Your task to perform on an android device: turn on improve location accuracy Image 0: 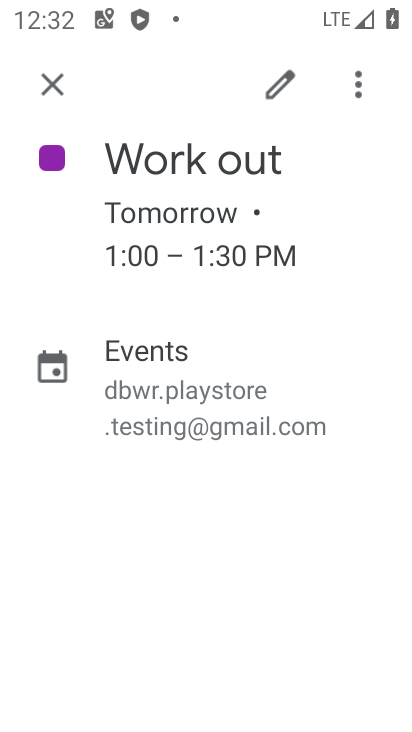
Step 0: press home button
Your task to perform on an android device: turn on improve location accuracy Image 1: 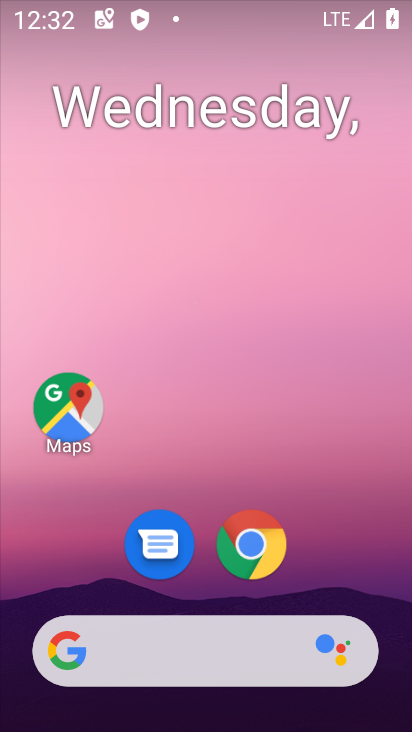
Step 1: drag from (384, 637) to (318, 77)
Your task to perform on an android device: turn on improve location accuracy Image 2: 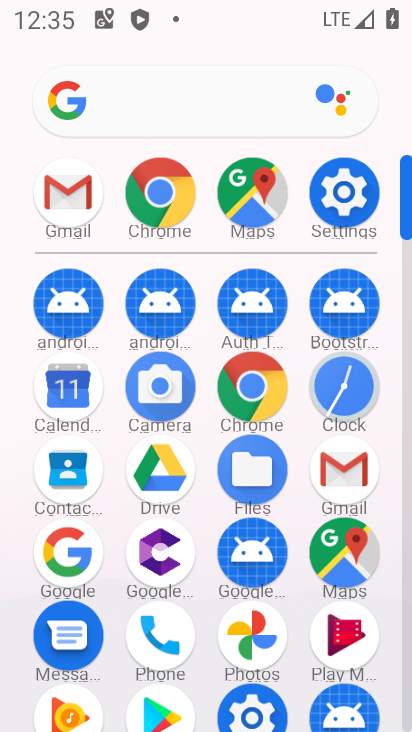
Step 2: click (260, 709)
Your task to perform on an android device: turn on improve location accuracy Image 3: 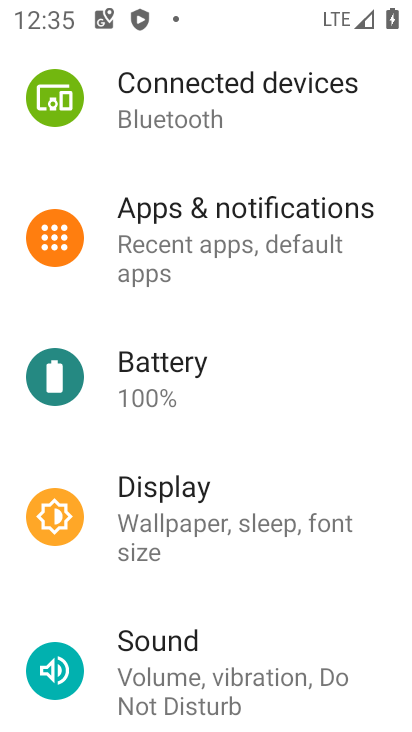
Step 3: drag from (180, 685) to (273, 194)
Your task to perform on an android device: turn on improve location accuracy Image 4: 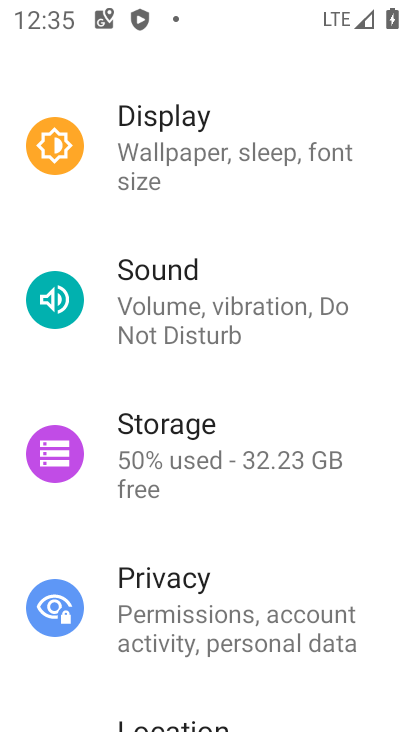
Step 4: drag from (187, 626) to (252, 199)
Your task to perform on an android device: turn on improve location accuracy Image 5: 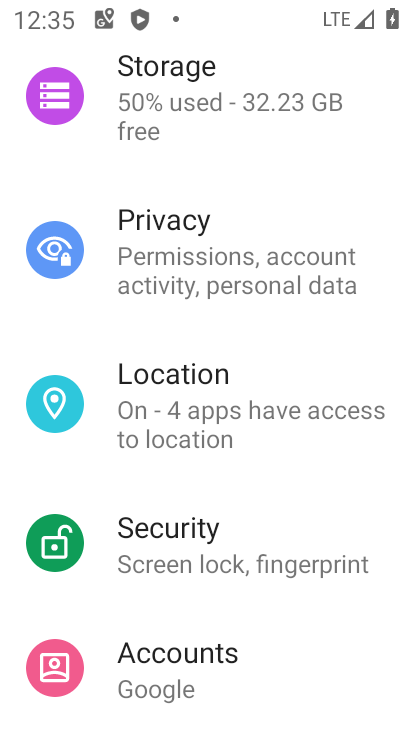
Step 5: click (212, 440)
Your task to perform on an android device: turn on improve location accuracy Image 6: 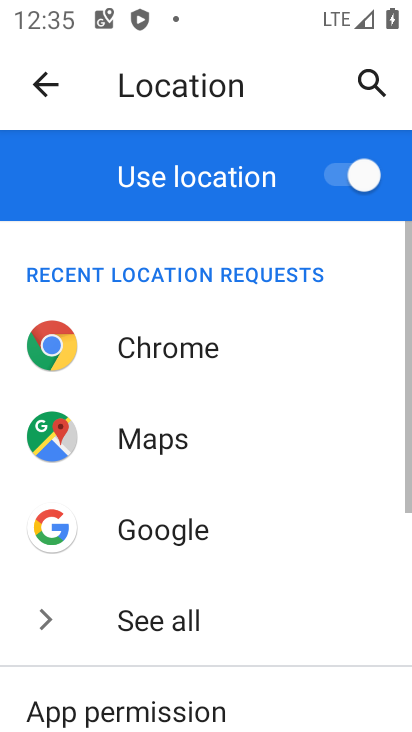
Step 6: drag from (191, 667) to (229, 69)
Your task to perform on an android device: turn on improve location accuracy Image 7: 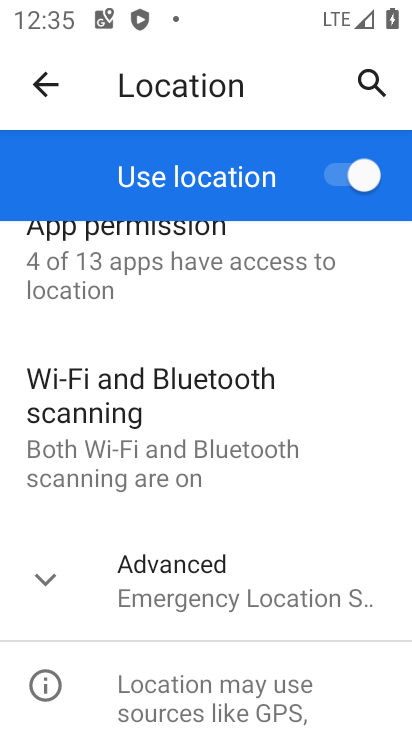
Step 7: click (69, 569)
Your task to perform on an android device: turn on improve location accuracy Image 8: 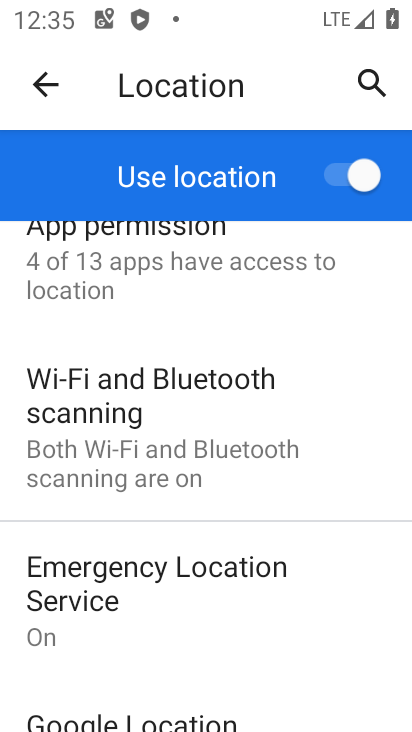
Step 8: drag from (228, 707) to (269, 305)
Your task to perform on an android device: turn on improve location accuracy Image 9: 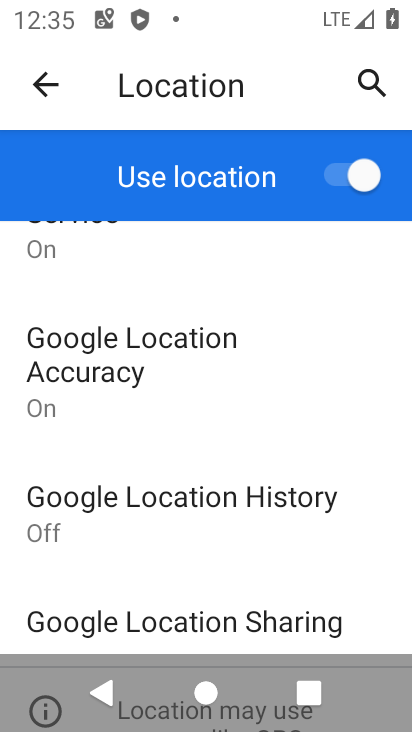
Step 9: drag from (230, 651) to (272, 237)
Your task to perform on an android device: turn on improve location accuracy Image 10: 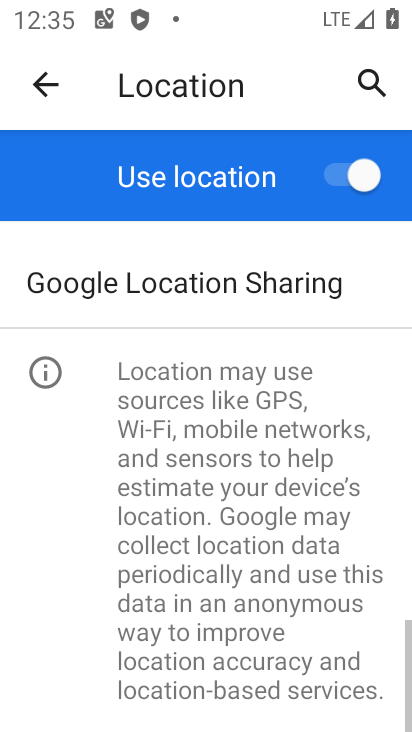
Step 10: drag from (185, 227) to (175, 660)
Your task to perform on an android device: turn on improve location accuracy Image 11: 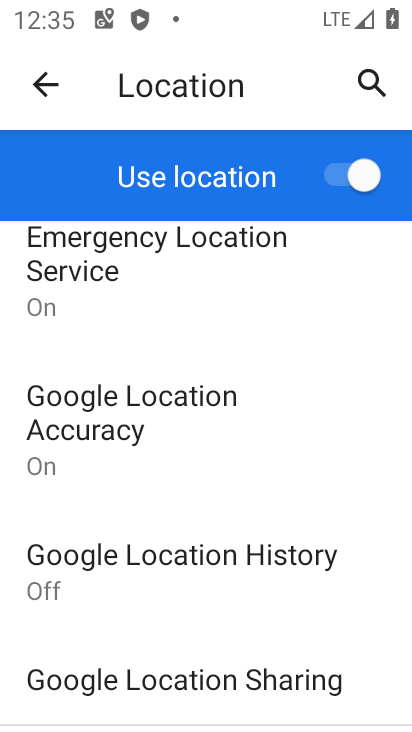
Step 11: click (115, 443)
Your task to perform on an android device: turn on improve location accuracy Image 12: 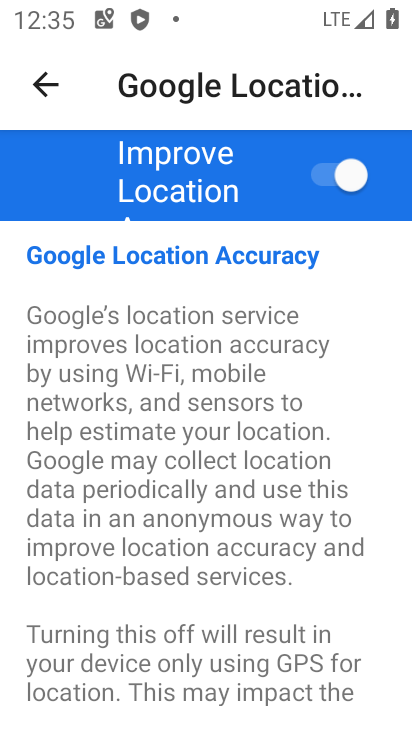
Step 12: task complete